Your task to perform on an android device: stop showing notifications on the lock screen Image 0: 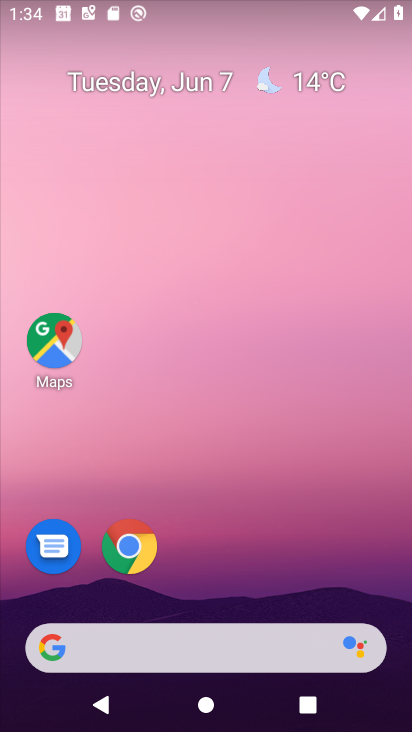
Step 0: drag from (283, 566) to (333, 31)
Your task to perform on an android device: stop showing notifications on the lock screen Image 1: 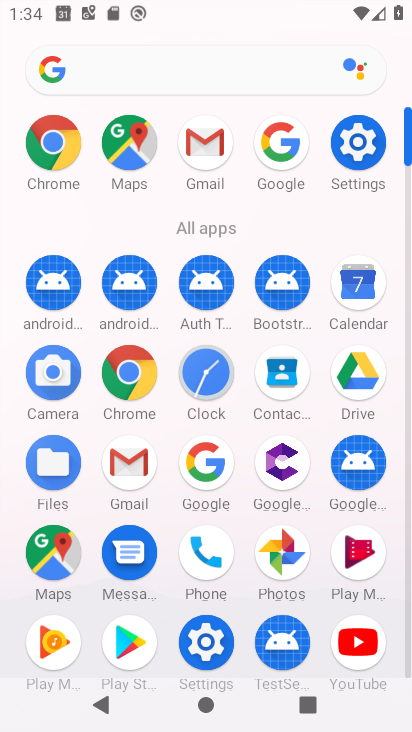
Step 1: click (347, 127)
Your task to perform on an android device: stop showing notifications on the lock screen Image 2: 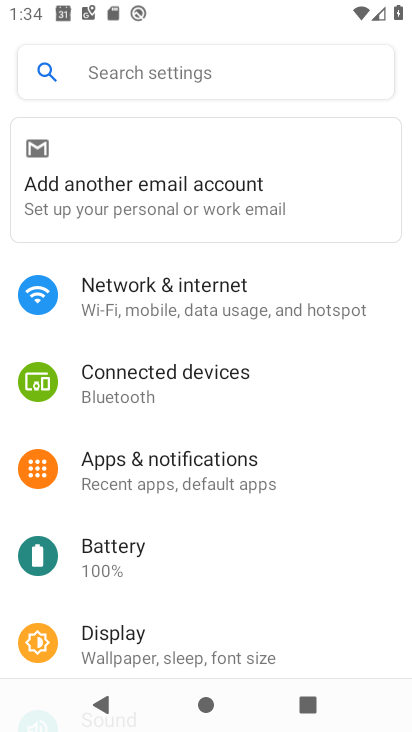
Step 2: click (153, 471)
Your task to perform on an android device: stop showing notifications on the lock screen Image 3: 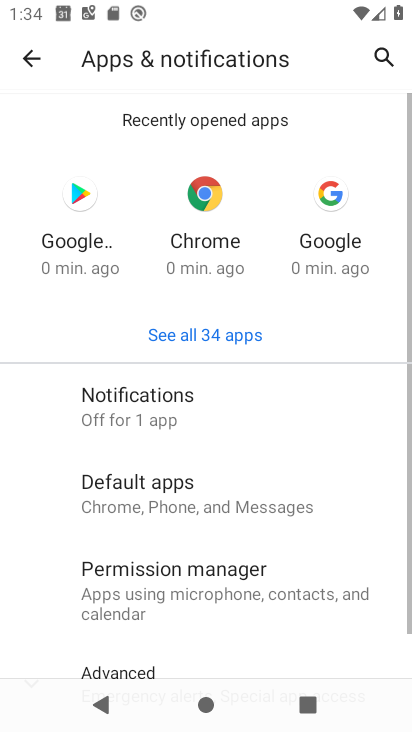
Step 3: click (202, 399)
Your task to perform on an android device: stop showing notifications on the lock screen Image 4: 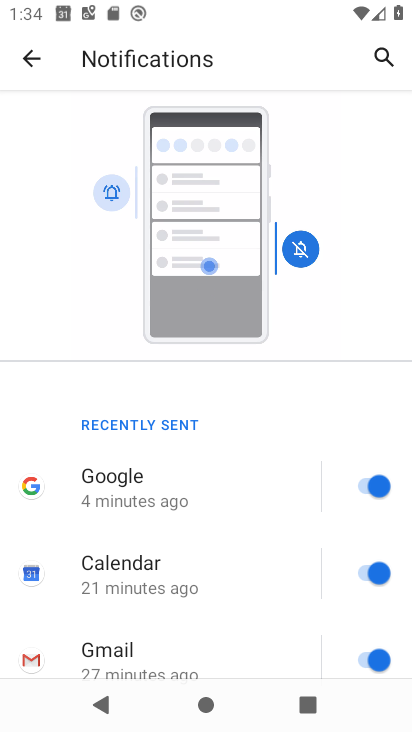
Step 4: drag from (245, 625) to (289, 159)
Your task to perform on an android device: stop showing notifications on the lock screen Image 5: 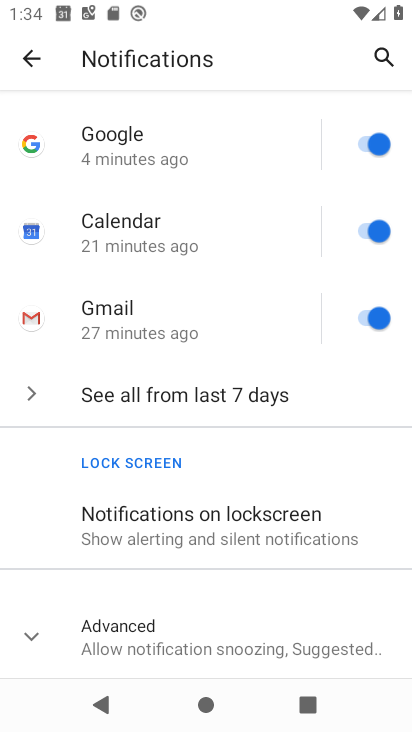
Step 5: click (230, 512)
Your task to perform on an android device: stop showing notifications on the lock screen Image 6: 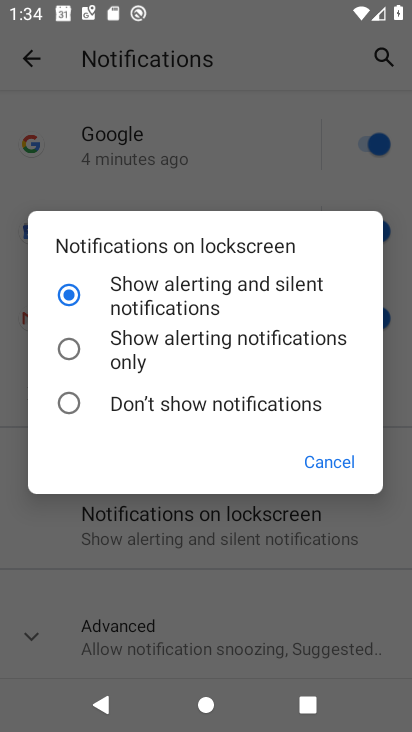
Step 6: click (60, 405)
Your task to perform on an android device: stop showing notifications on the lock screen Image 7: 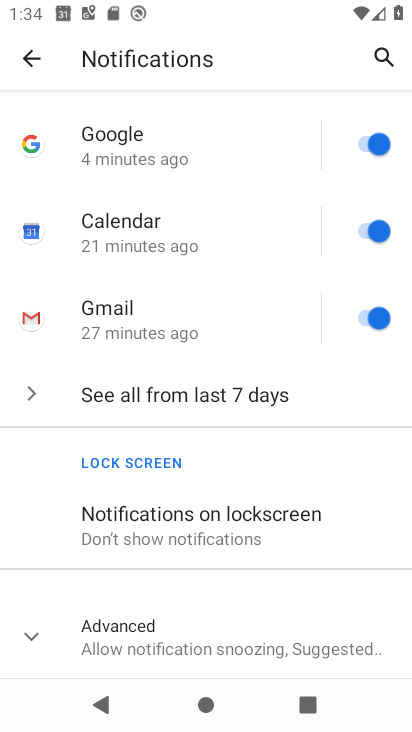
Step 7: task complete